Your task to perform on an android device: allow cookies in the chrome app Image 0: 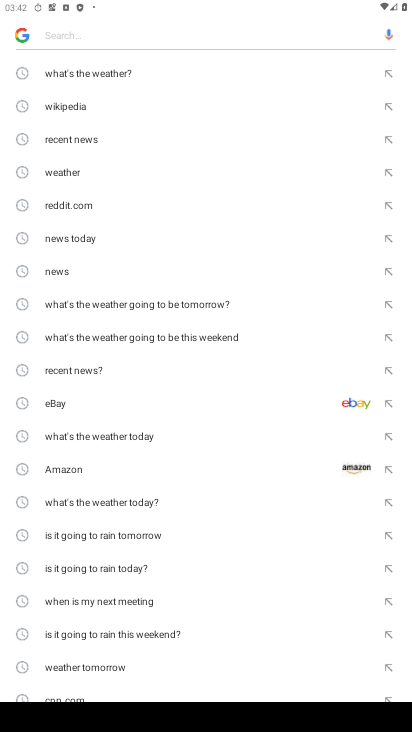
Step 0: press home button
Your task to perform on an android device: allow cookies in the chrome app Image 1: 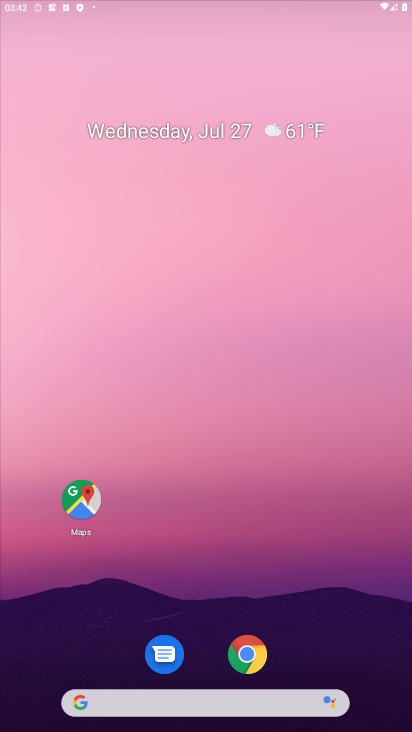
Step 1: drag from (166, 433) to (97, 20)
Your task to perform on an android device: allow cookies in the chrome app Image 2: 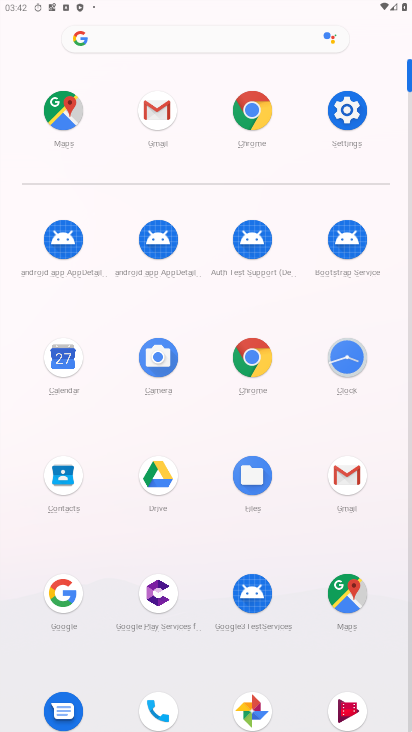
Step 2: click (247, 353)
Your task to perform on an android device: allow cookies in the chrome app Image 3: 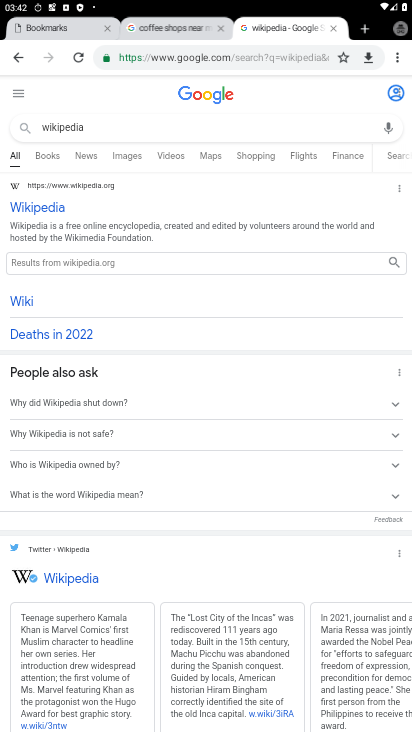
Step 3: drag from (404, 53) to (382, 127)
Your task to perform on an android device: allow cookies in the chrome app Image 4: 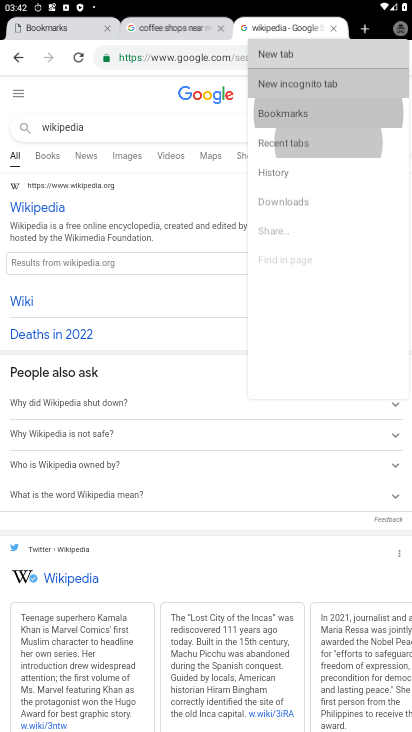
Step 4: drag from (362, 156) to (304, 293)
Your task to perform on an android device: allow cookies in the chrome app Image 5: 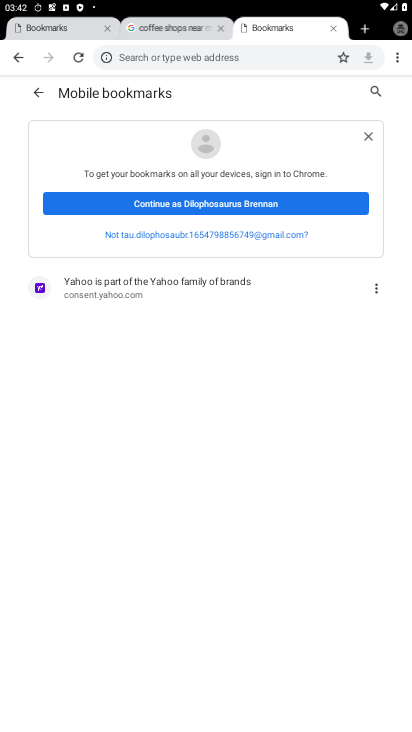
Step 5: drag from (390, 67) to (283, 268)
Your task to perform on an android device: allow cookies in the chrome app Image 6: 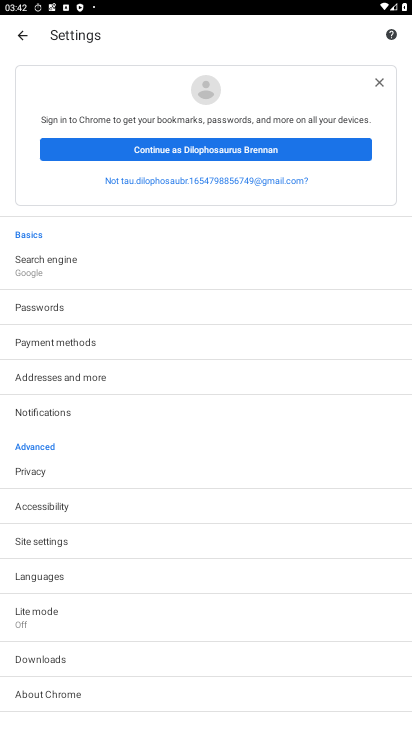
Step 6: click (40, 480)
Your task to perform on an android device: allow cookies in the chrome app Image 7: 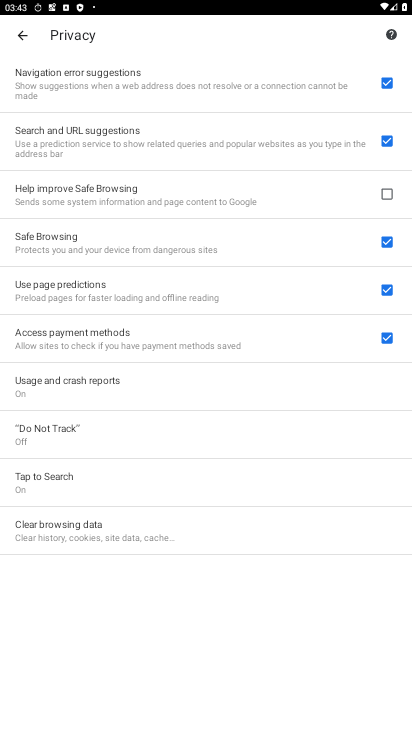
Step 7: press back button
Your task to perform on an android device: allow cookies in the chrome app Image 8: 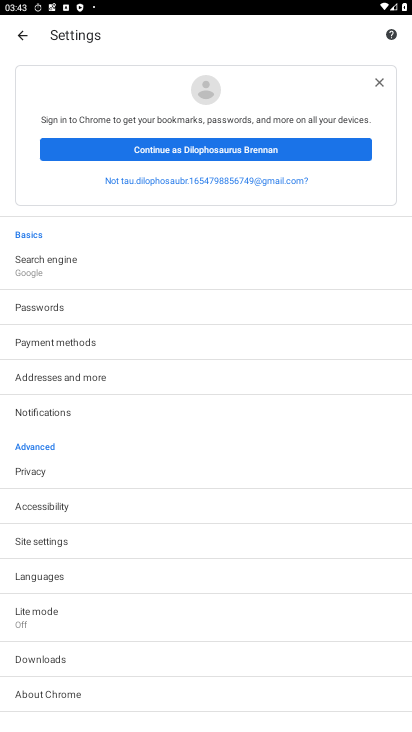
Step 8: click (53, 547)
Your task to perform on an android device: allow cookies in the chrome app Image 9: 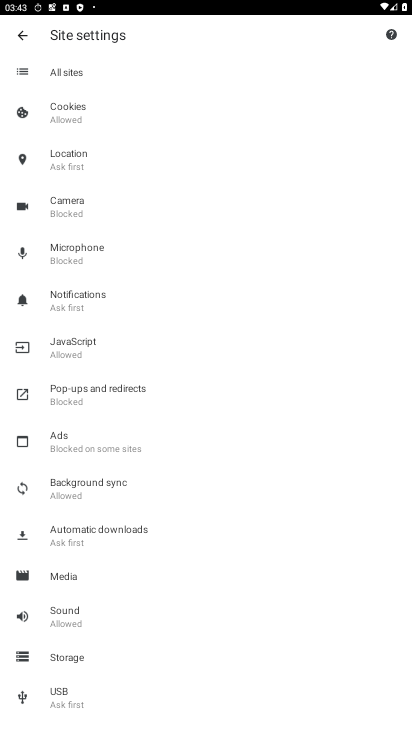
Step 9: click (78, 113)
Your task to perform on an android device: allow cookies in the chrome app Image 10: 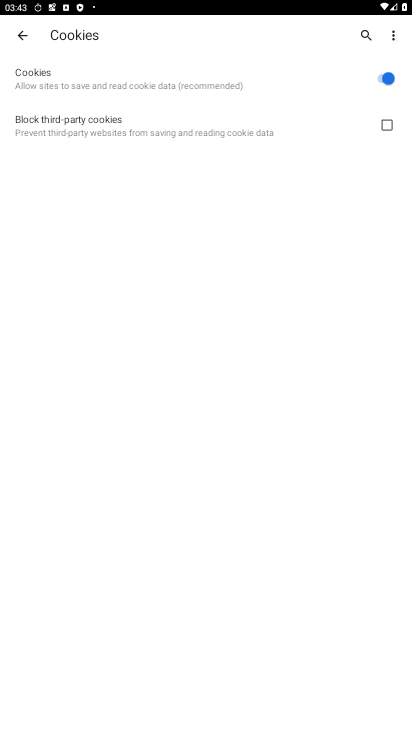
Step 10: task complete